Your task to perform on an android device: Open Yahoo.com Image 0: 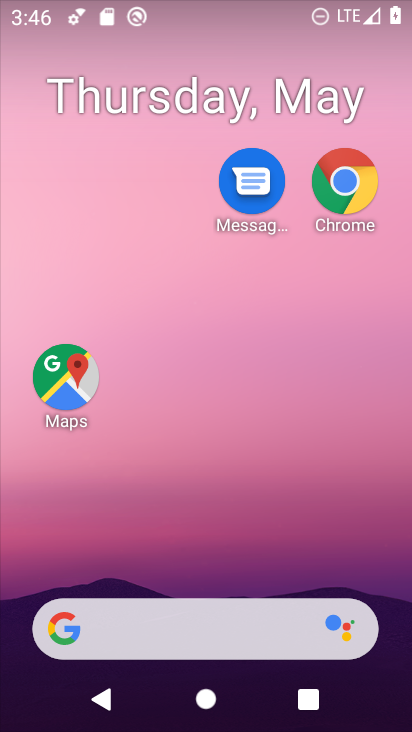
Step 0: drag from (318, 622) to (401, 622)
Your task to perform on an android device: Open Yahoo.com Image 1: 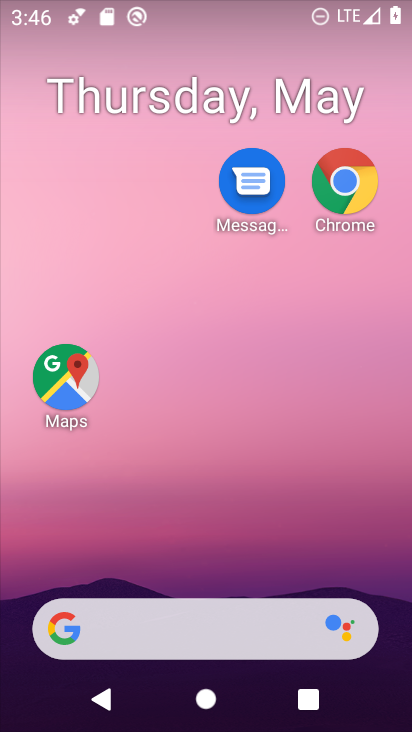
Step 1: drag from (272, 566) to (374, 0)
Your task to perform on an android device: Open Yahoo.com Image 2: 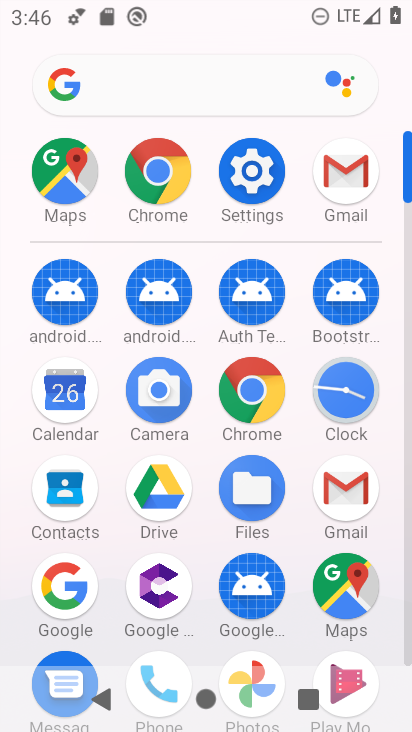
Step 2: click (62, 404)
Your task to perform on an android device: Open Yahoo.com Image 3: 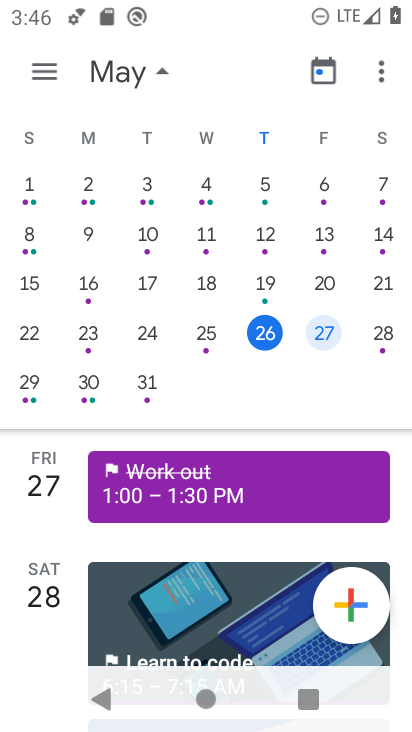
Step 3: press back button
Your task to perform on an android device: Open Yahoo.com Image 4: 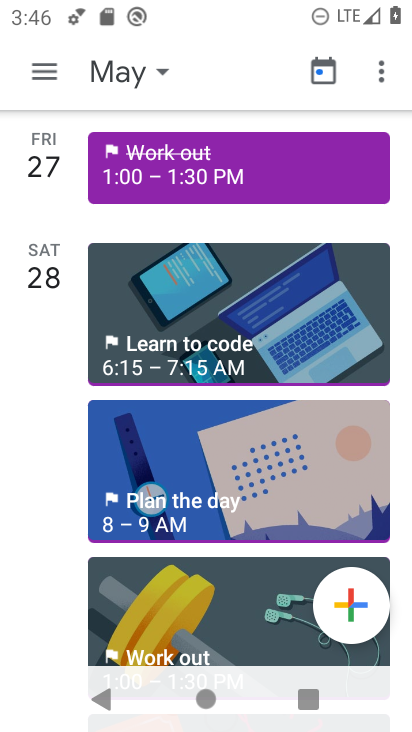
Step 4: press back button
Your task to perform on an android device: Open Yahoo.com Image 5: 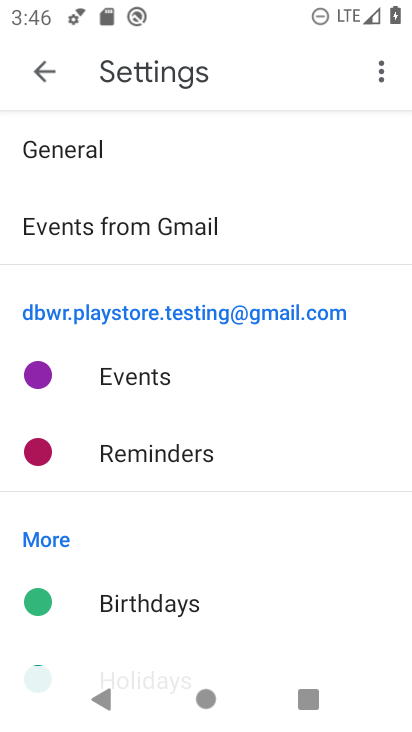
Step 5: press home button
Your task to perform on an android device: Open Yahoo.com Image 6: 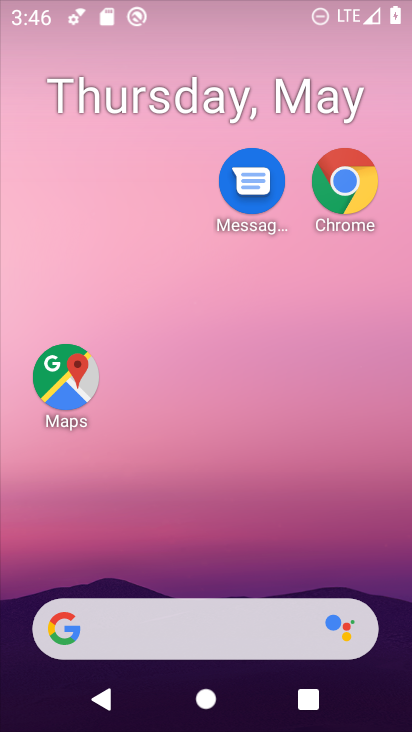
Step 6: drag from (310, 589) to (287, 32)
Your task to perform on an android device: Open Yahoo.com Image 7: 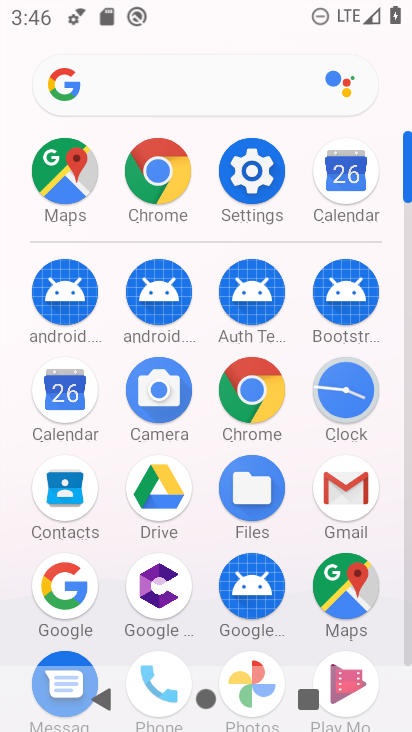
Step 7: click (269, 380)
Your task to perform on an android device: Open Yahoo.com Image 8: 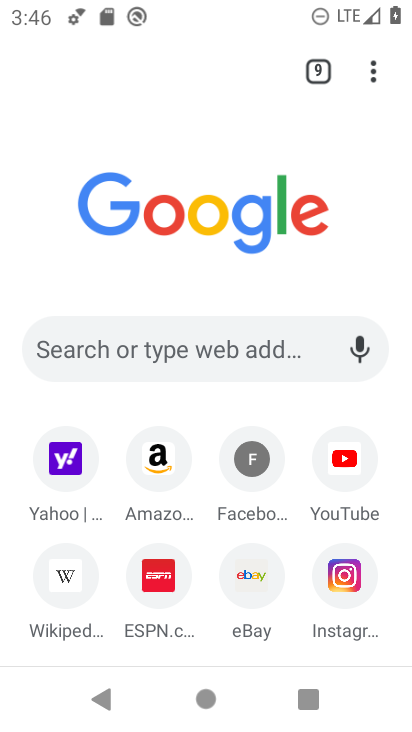
Step 8: click (78, 486)
Your task to perform on an android device: Open Yahoo.com Image 9: 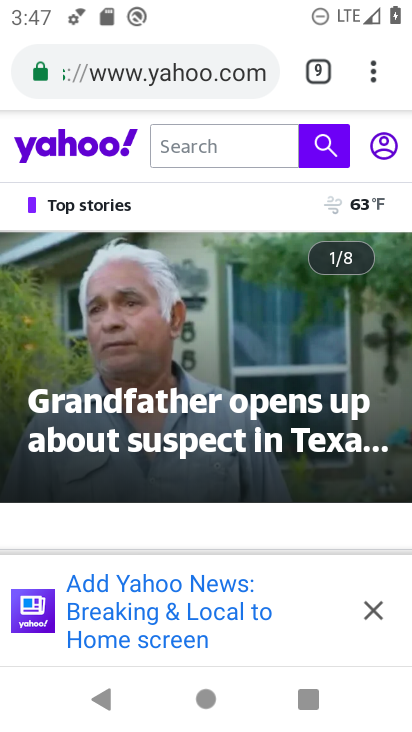
Step 9: task complete